Your task to perform on an android device: When is my next appointment? Image 0: 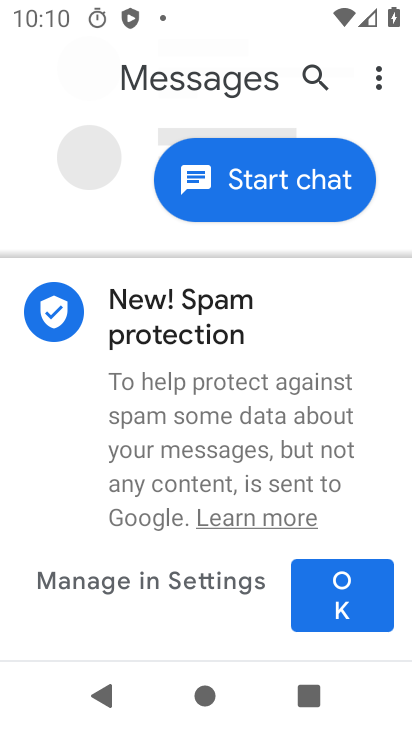
Step 0: press home button
Your task to perform on an android device: When is my next appointment? Image 1: 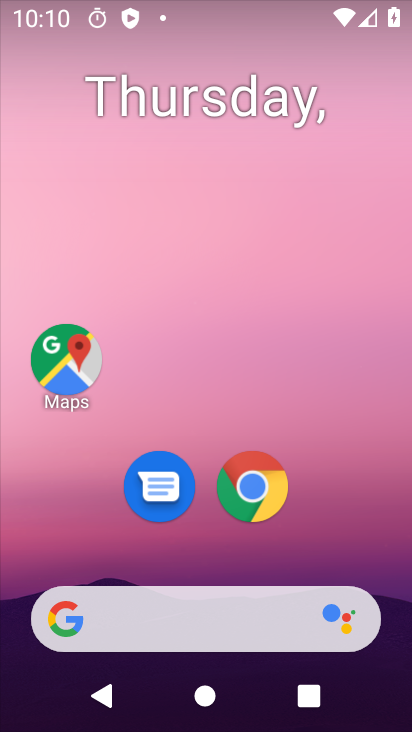
Step 1: click (358, 185)
Your task to perform on an android device: When is my next appointment? Image 2: 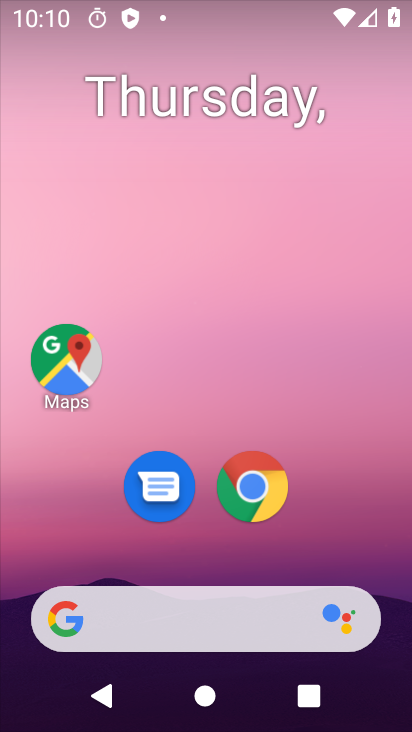
Step 2: drag from (369, 544) to (332, 102)
Your task to perform on an android device: When is my next appointment? Image 3: 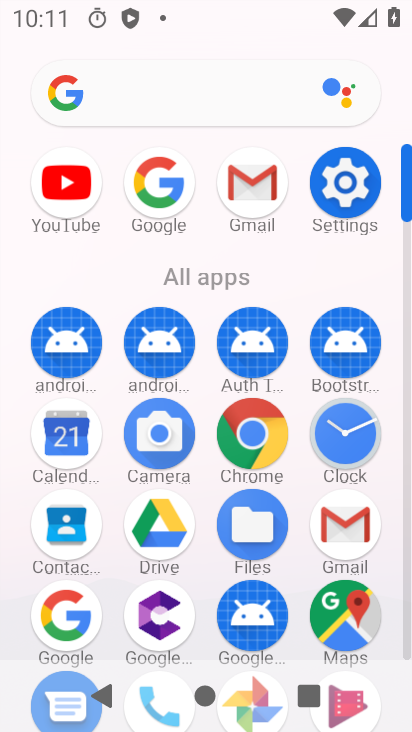
Step 3: click (56, 446)
Your task to perform on an android device: When is my next appointment? Image 4: 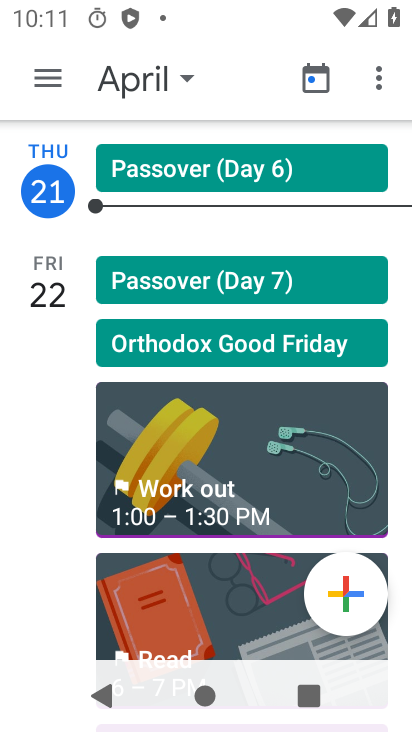
Step 4: click (189, 70)
Your task to perform on an android device: When is my next appointment? Image 5: 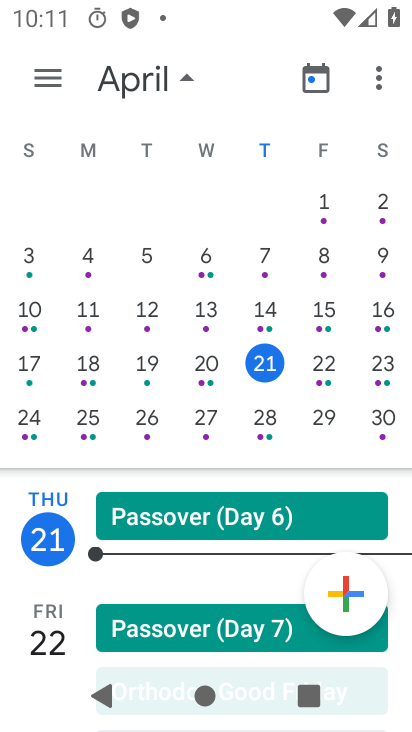
Step 5: click (44, 74)
Your task to perform on an android device: When is my next appointment? Image 6: 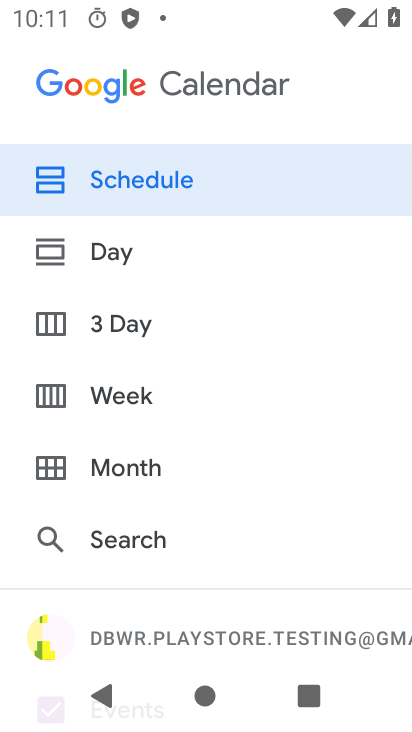
Step 6: click (252, 275)
Your task to perform on an android device: When is my next appointment? Image 7: 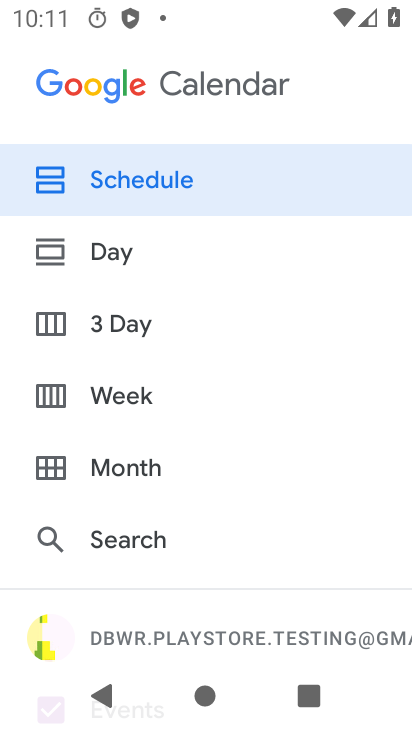
Step 7: drag from (270, 487) to (267, 285)
Your task to perform on an android device: When is my next appointment? Image 8: 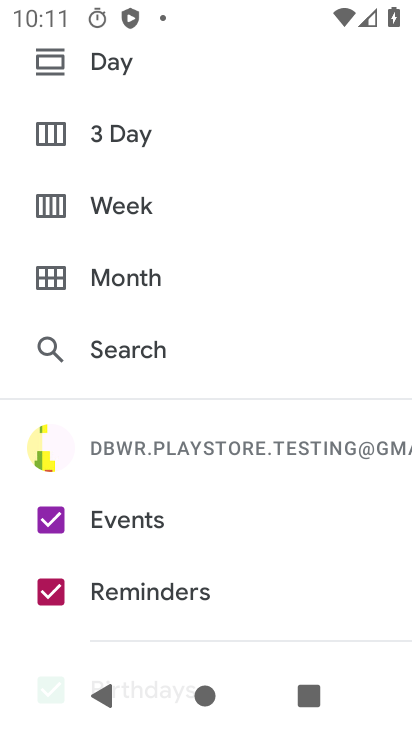
Step 8: drag from (292, 584) to (299, 363)
Your task to perform on an android device: When is my next appointment? Image 9: 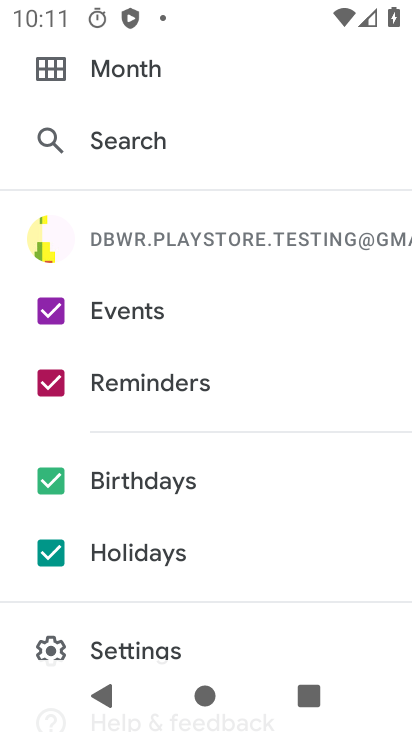
Step 9: click (318, 355)
Your task to perform on an android device: When is my next appointment? Image 10: 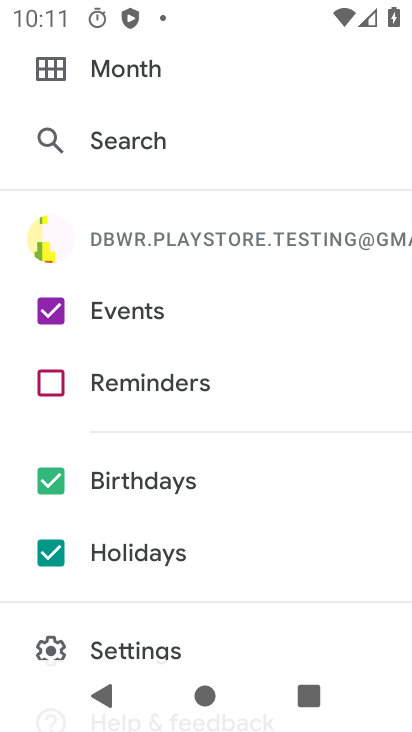
Step 10: click (64, 478)
Your task to perform on an android device: When is my next appointment? Image 11: 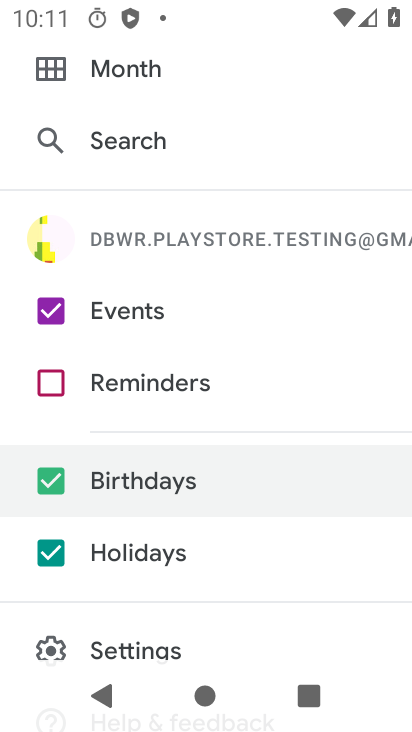
Step 11: click (50, 557)
Your task to perform on an android device: When is my next appointment? Image 12: 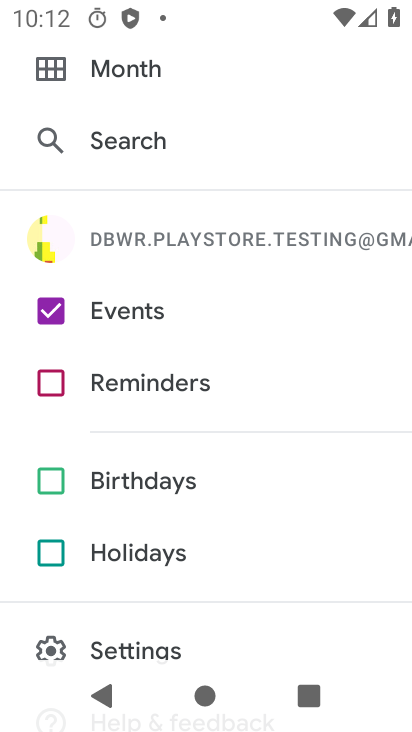
Step 12: click (109, 145)
Your task to perform on an android device: When is my next appointment? Image 13: 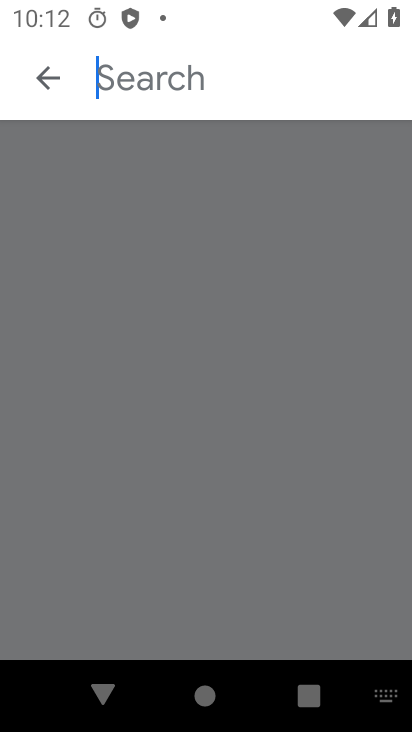
Step 13: click (46, 67)
Your task to perform on an android device: When is my next appointment? Image 14: 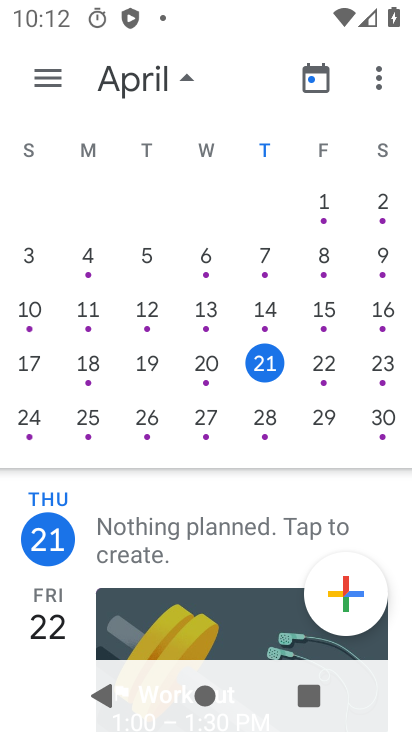
Step 14: task complete